Your task to perform on an android device: Search for vegetarian restaurants on Maps Image 0: 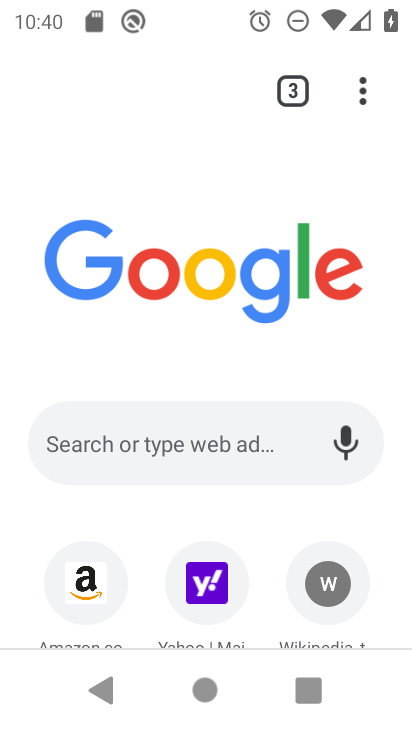
Step 0: press home button
Your task to perform on an android device: Search for vegetarian restaurants on Maps Image 1: 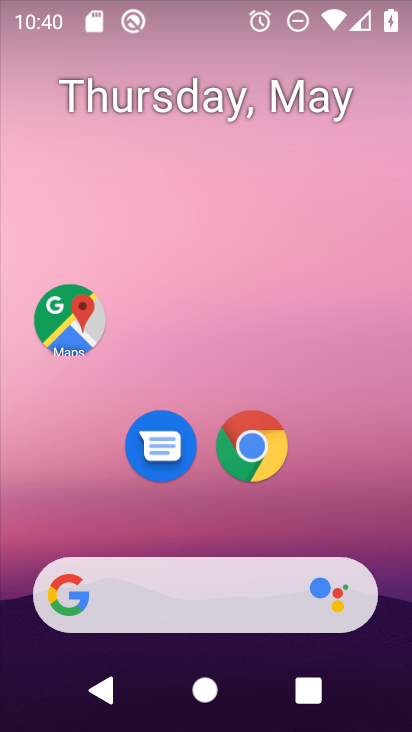
Step 1: drag from (293, 626) to (303, 197)
Your task to perform on an android device: Search for vegetarian restaurants on Maps Image 2: 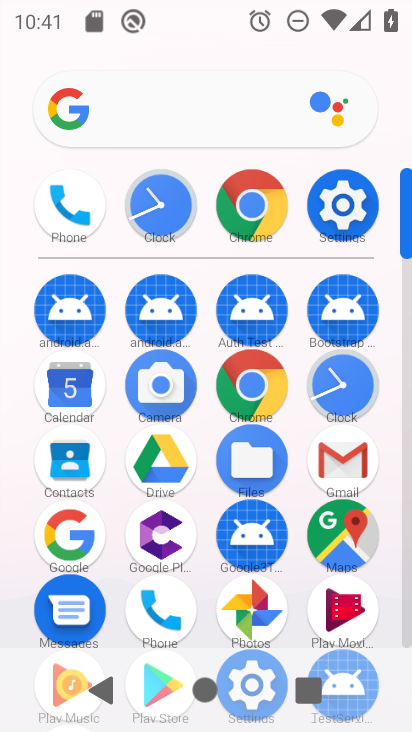
Step 2: click (337, 534)
Your task to perform on an android device: Search for vegetarian restaurants on Maps Image 3: 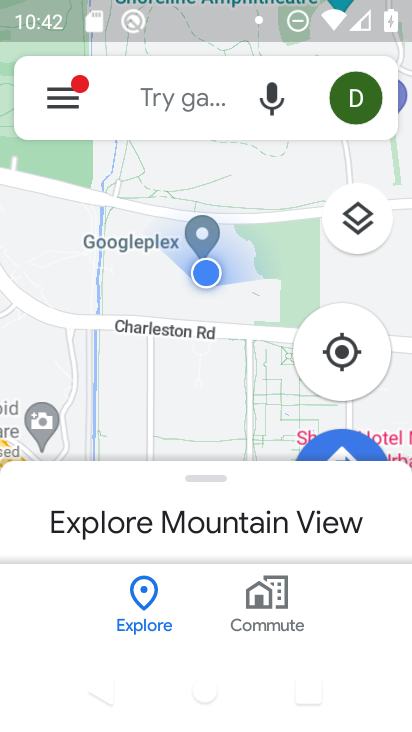
Step 3: click (140, 103)
Your task to perform on an android device: Search for vegetarian restaurants on Maps Image 4: 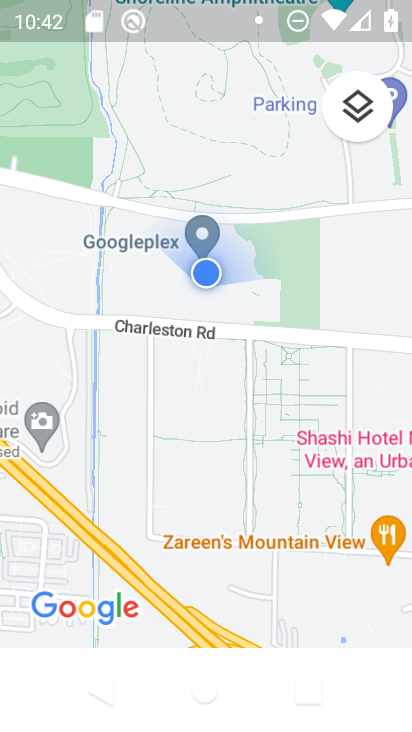
Step 4: drag from (138, 311) to (114, 398)
Your task to perform on an android device: Search for vegetarian restaurants on Maps Image 5: 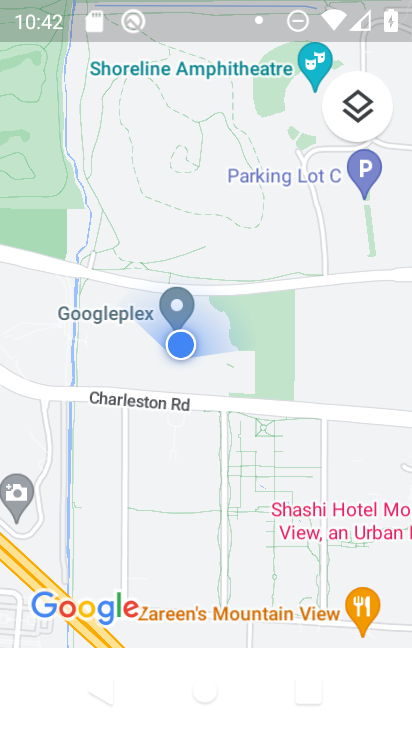
Step 5: press back button
Your task to perform on an android device: Search for vegetarian restaurants on Maps Image 6: 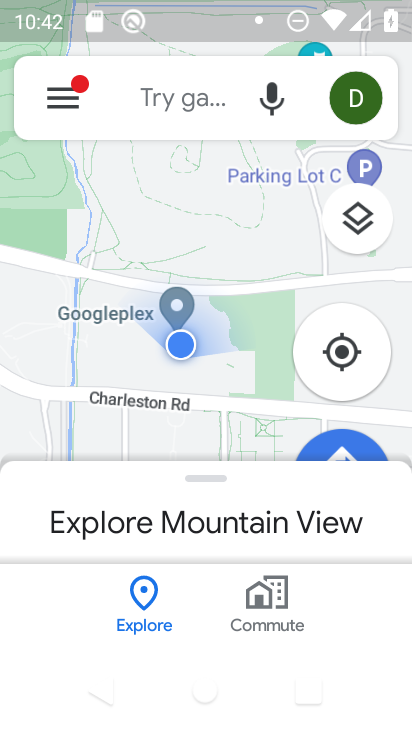
Step 6: click (168, 105)
Your task to perform on an android device: Search for vegetarian restaurants on Maps Image 7: 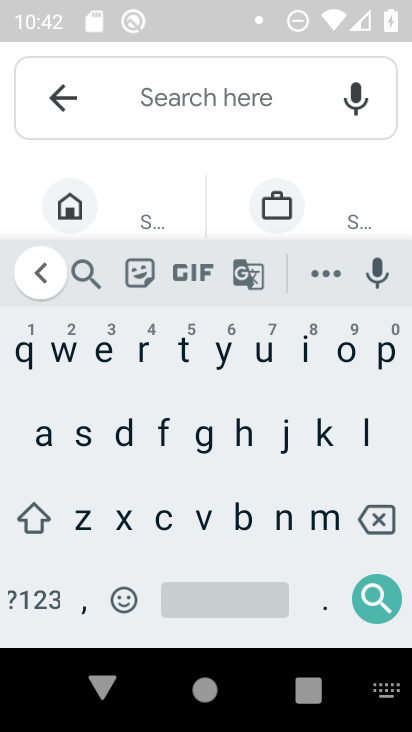
Step 7: click (208, 517)
Your task to perform on an android device: Search for vegetarian restaurants on Maps Image 8: 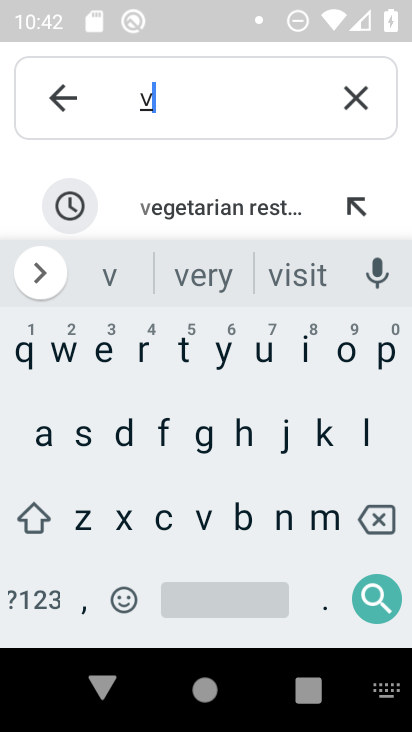
Step 8: click (206, 215)
Your task to perform on an android device: Search for vegetarian restaurants on Maps Image 9: 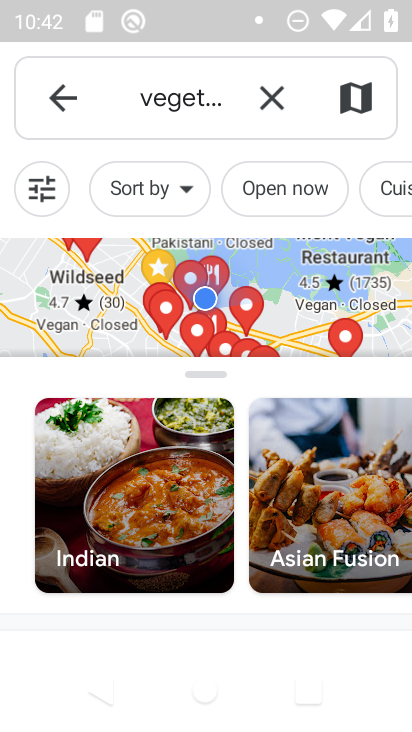
Step 9: click (275, 305)
Your task to perform on an android device: Search for vegetarian restaurants on Maps Image 10: 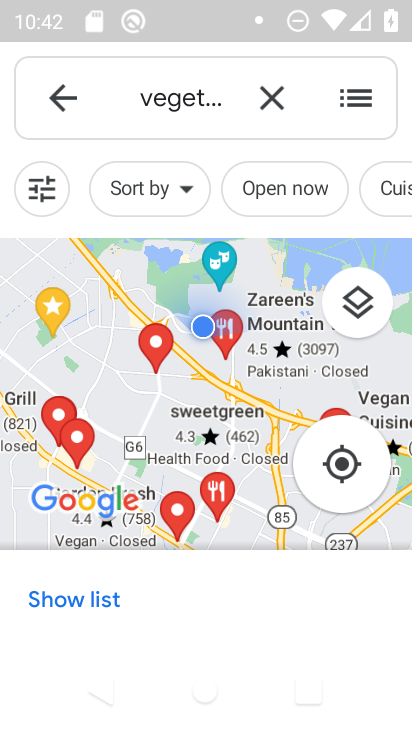
Step 10: task complete